Your task to perform on an android device: Open battery settings Image 0: 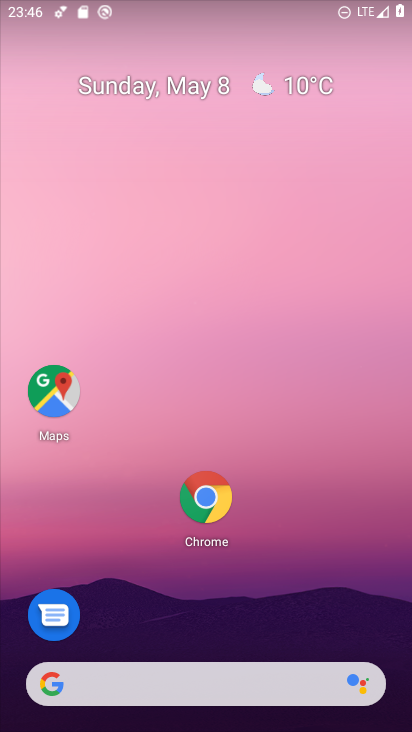
Step 0: drag from (298, 587) to (315, 134)
Your task to perform on an android device: Open battery settings Image 1: 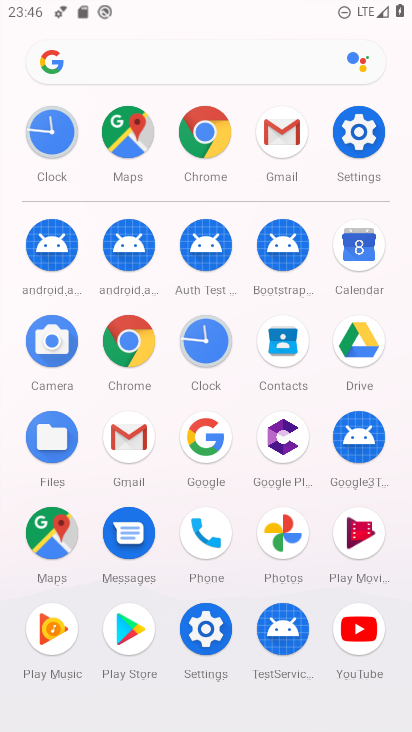
Step 1: click (353, 128)
Your task to perform on an android device: Open battery settings Image 2: 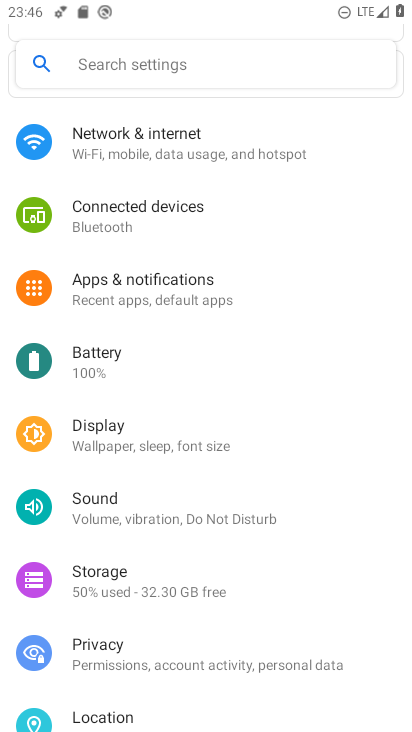
Step 2: drag from (205, 542) to (228, 147)
Your task to perform on an android device: Open battery settings Image 3: 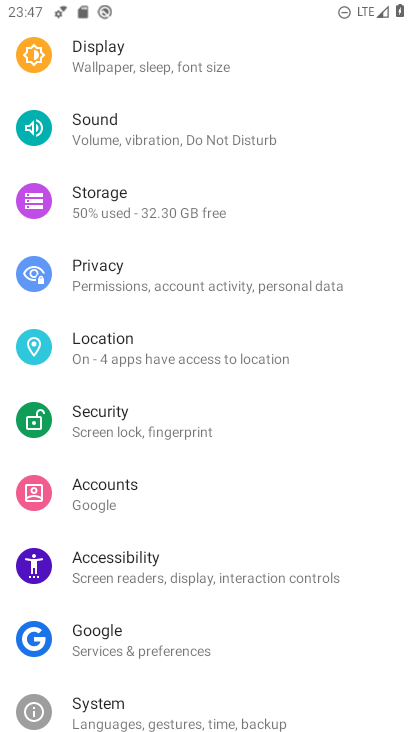
Step 3: drag from (178, 142) to (233, 663)
Your task to perform on an android device: Open battery settings Image 4: 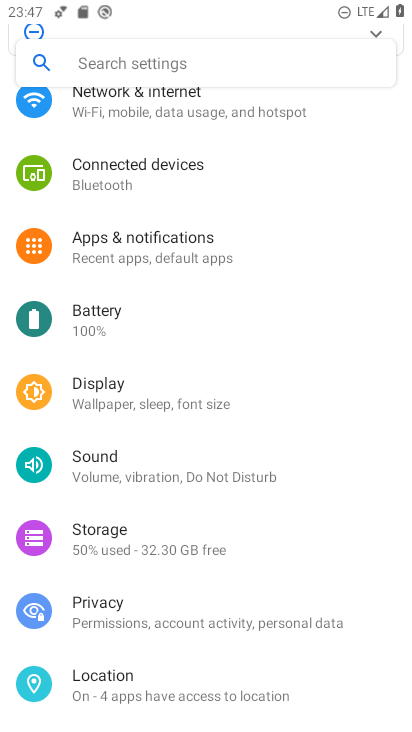
Step 4: drag from (252, 310) to (274, 634)
Your task to perform on an android device: Open battery settings Image 5: 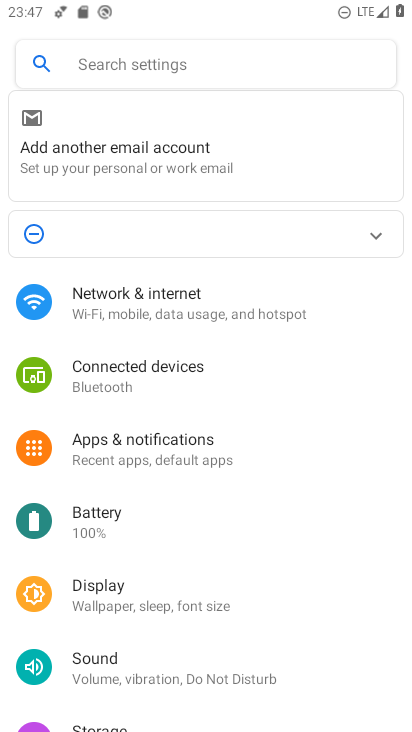
Step 5: drag from (231, 584) to (230, 428)
Your task to perform on an android device: Open battery settings Image 6: 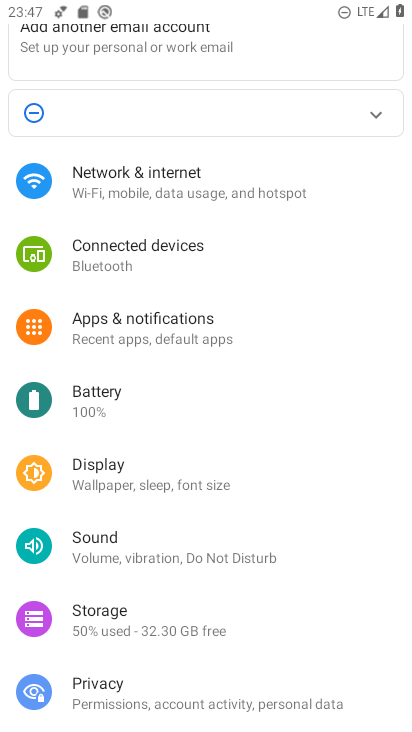
Step 6: click (106, 408)
Your task to perform on an android device: Open battery settings Image 7: 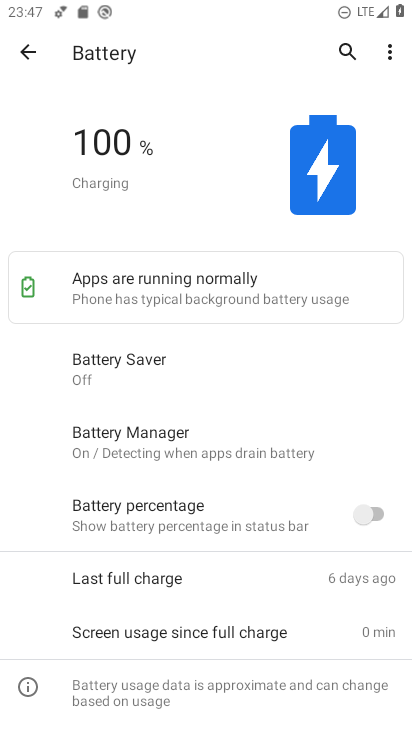
Step 7: task complete